Your task to perform on an android device: See recent photos Image 0: 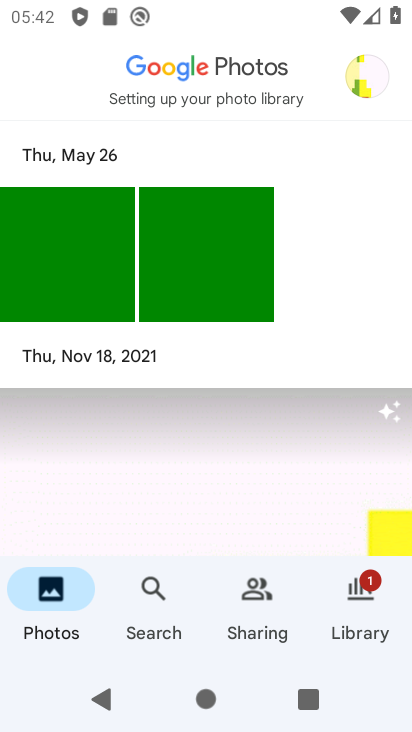
Step 0: press back button
Your task to perform on an android device: See recent photos Image 1: 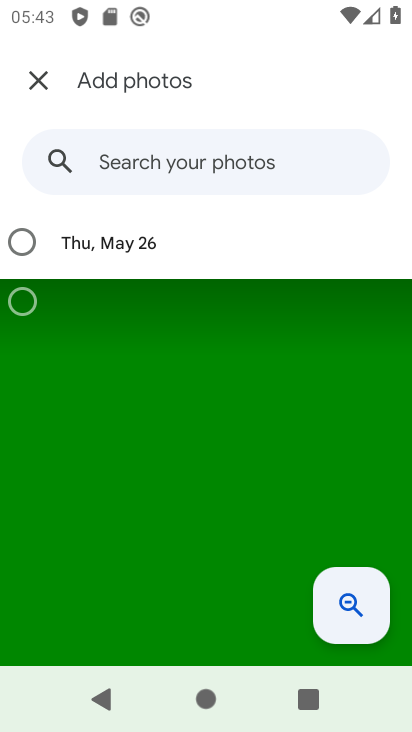
Step 1: press back button
Your task to perform on an android device: See recent photos Image 2: 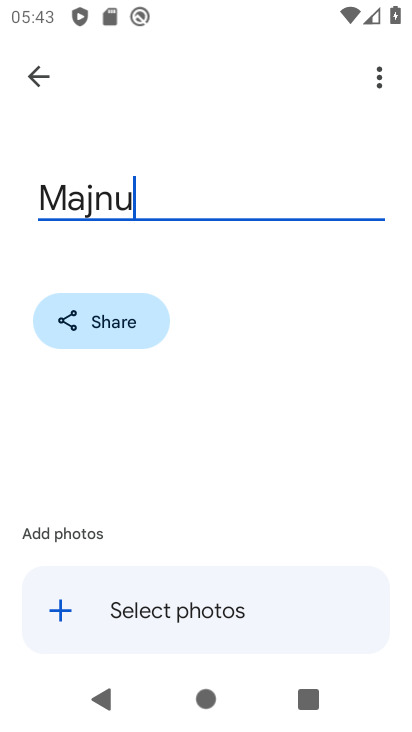
Step 2: press home button
Your task to perform on an android device: See recent photos Image 3: 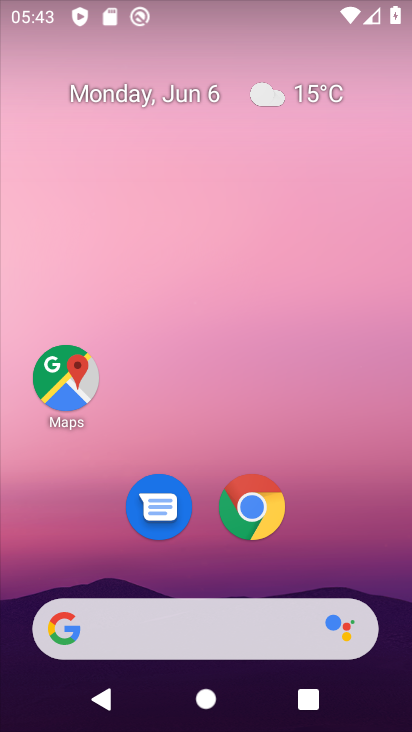
Step 3: drag from (213, 577) to (362, 8)
Your task to perform on an android device: See recent photos Image 4: 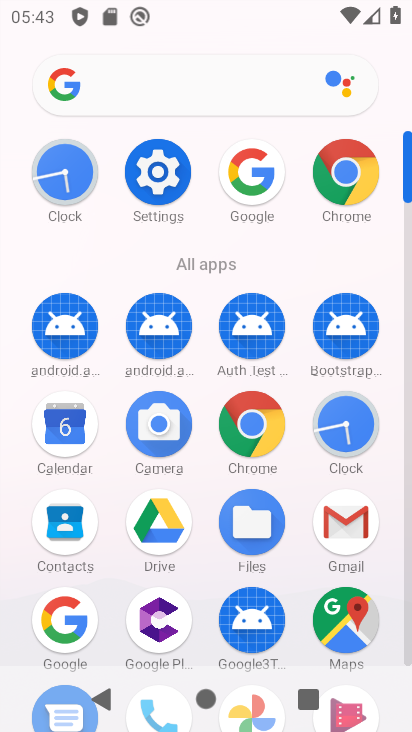
Step 4: click (333, 427)
Your task to perform on an android device: See recent photos Image 5: 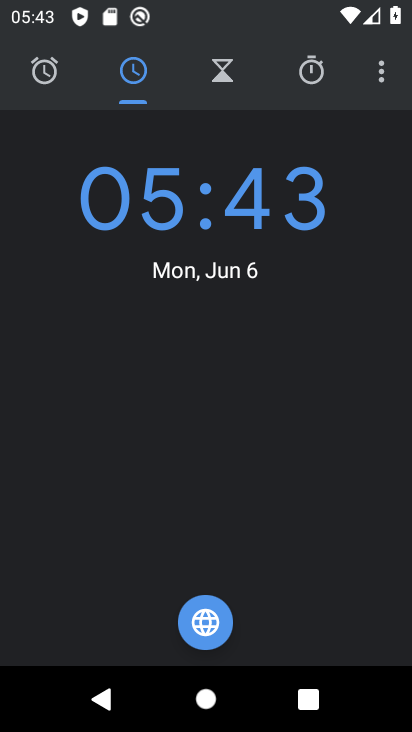
Step 5: click (380, 80)
Your task to perform on an android device: See recent photos Image 6: 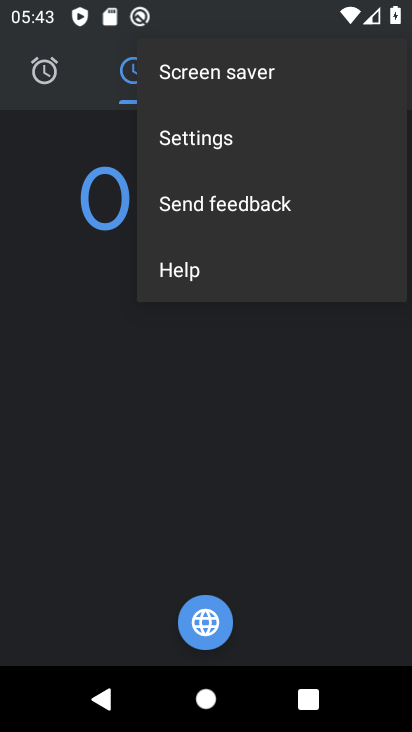
Step 6: click (219, 149)
Your task to perform on an android device: See recent photos Image 7: 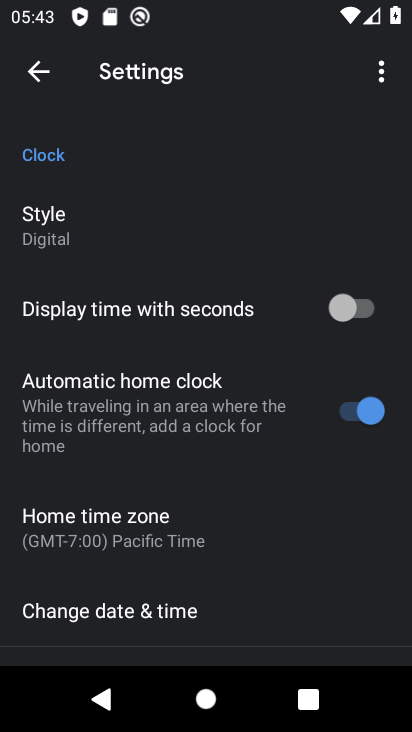
Step 7: drag from (214, 611) to (197, 193)
Your task to perform on an android device: See recent photos Image 8: 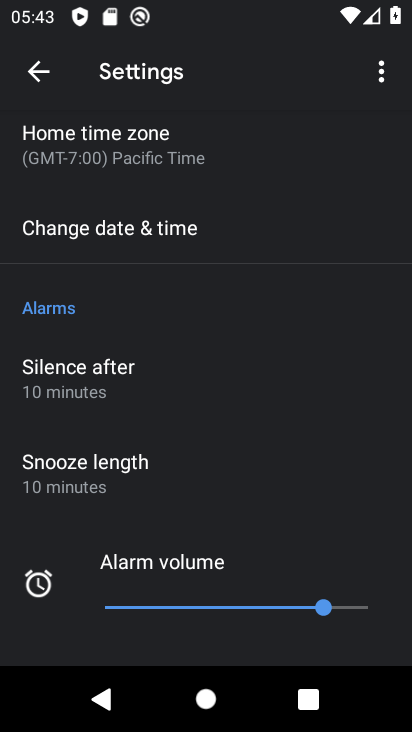
Step 8: drag from (206, 169) to (153, 574)
Your task to perform on an android device: See recent photos Image 9: 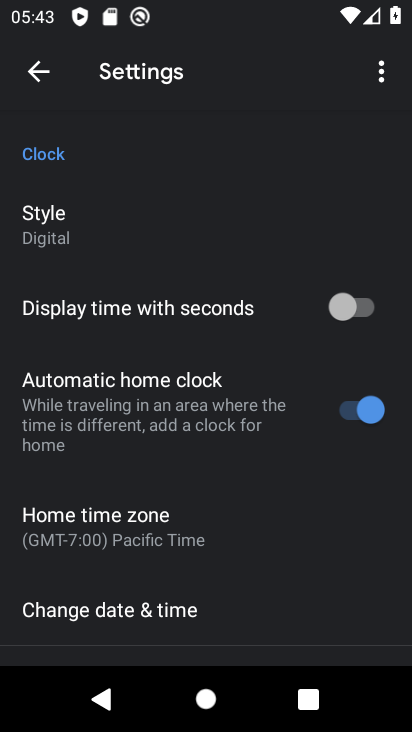
Step 9: press back button
Your task to perform on an android device: See recent photos Image 10: 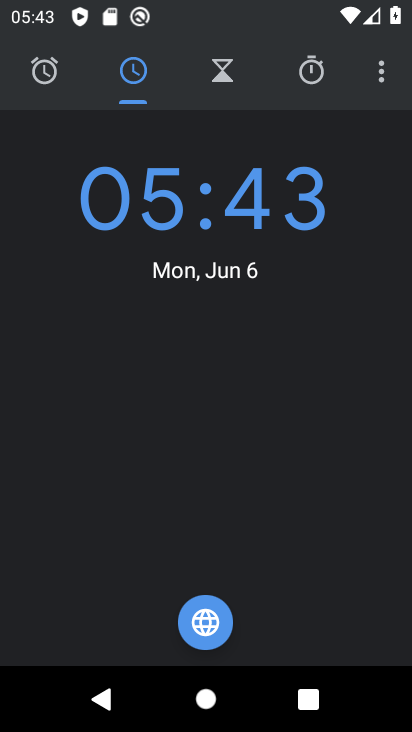
Step 10: press home button
Your task to perform on an android device: See recent photos Image 11: 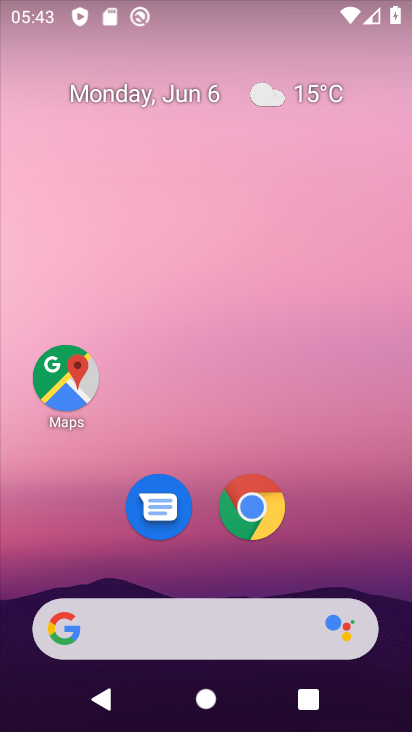
Step 11: drag from (254, 587) to (201, 7)
Your task to perform on an android device: See recent photos Image 12: 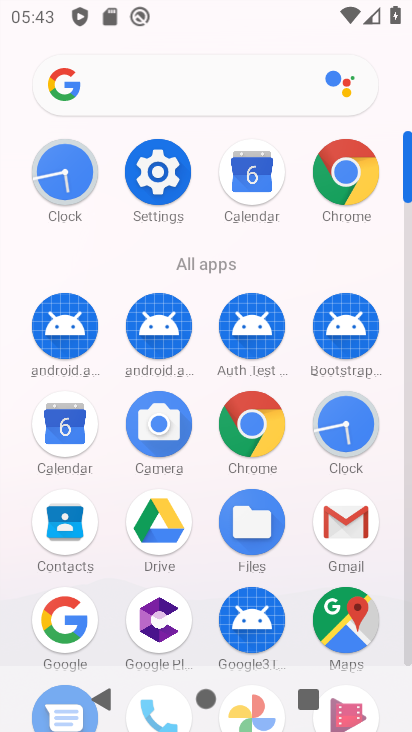
Step 12: drag from (252, 550) to (284, 334)
Your task to perform on an android device: See recent photos Image 13: 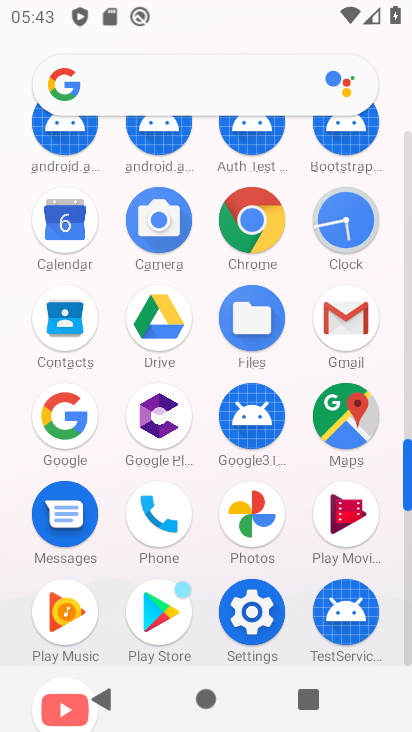
Step 13: click (233, 526)
Your task to perform on an android device: See recent photos Image 14: 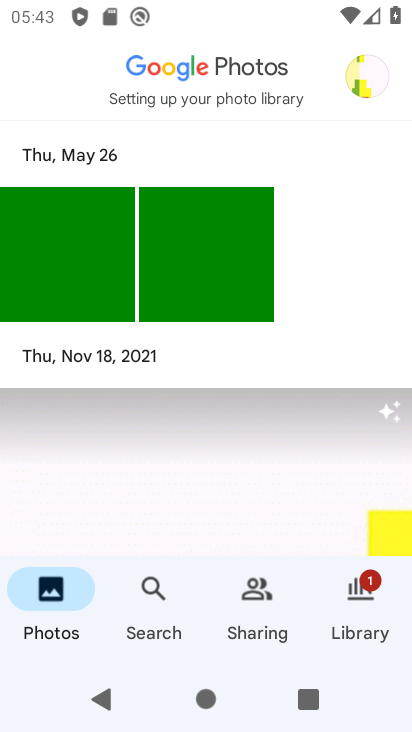
Step 14: click (350, 611)
Your task to perform on an android device: See recent photos Image 15: 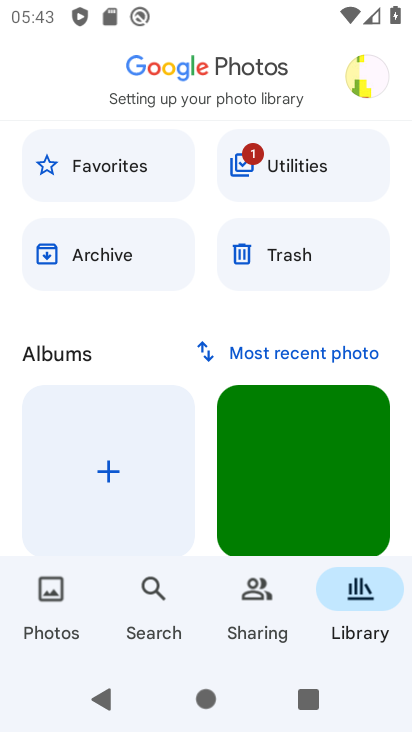
Step 15: task complete